Your task to perform on an android device: Open sound settings Image 0: 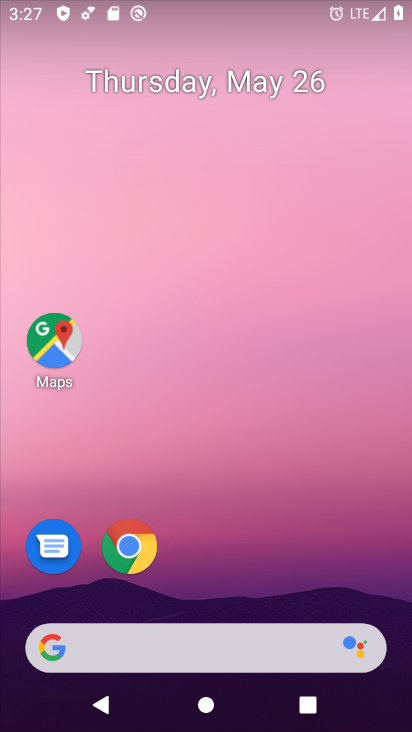
Step 0: drag from (317, 542) to (320, 97)
Your task to perform on an android device: Open sound settings Image 1: 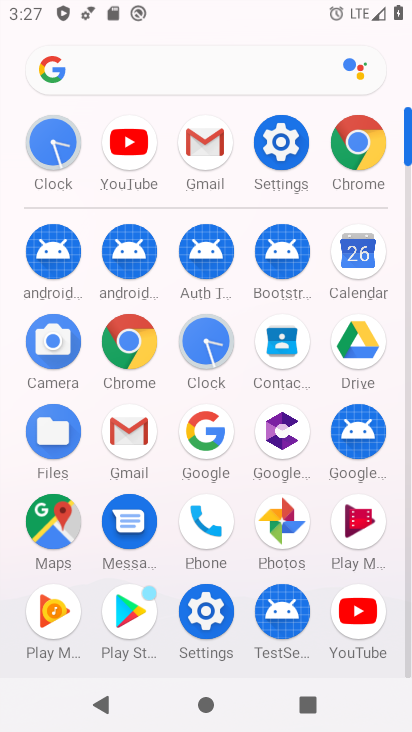
Step 1: click (278, 151)
Your task to perform on an android device: Open sound settings Image 2: 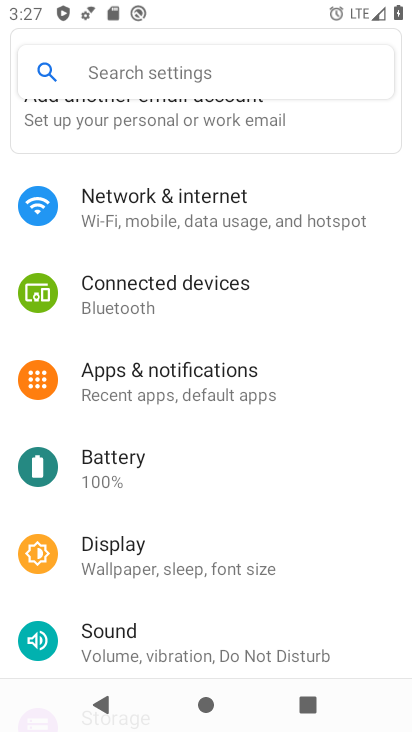
Step 2: click (123, 635)
Your task to perform on an android device: Open sound settings Image 3: 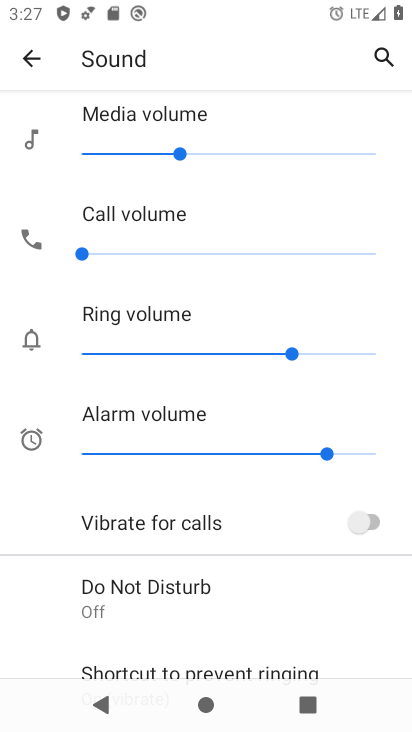
Step 3: task complete